Your task to perform on an android device: change the clock display to show seconds Image 0: 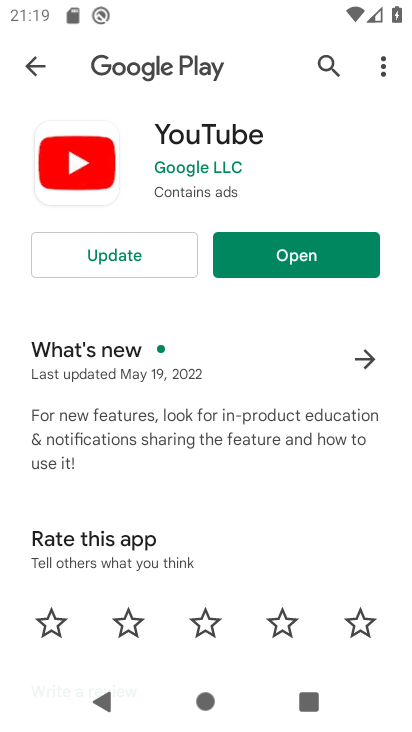
Step 0: press home button
Your task to perform on an android device: change the clock display to show seconds Image 1: 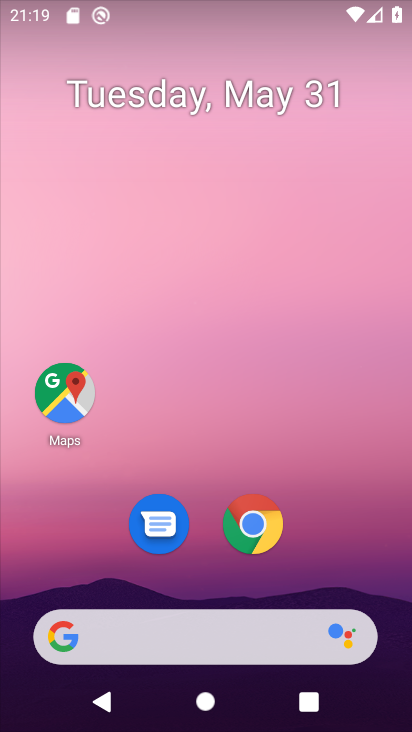
Step 1: drag from (301, 535) to (297, 130)
Your task to perform on an android device: change the clock display to show seconds Image 2: 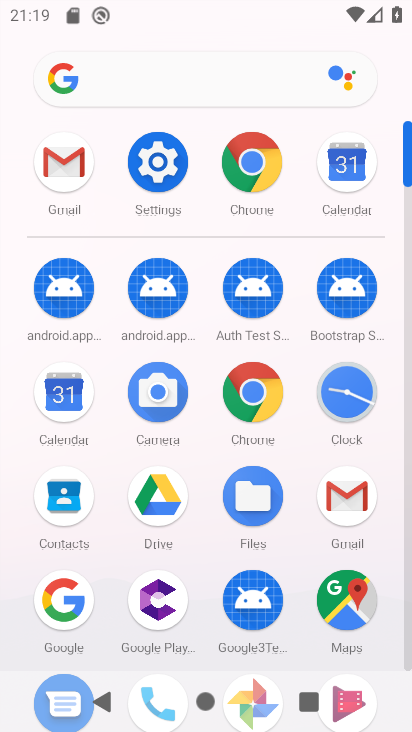
Step 2: click (347, 382)
Your task to perform on an android device: change the clock display to show seconds Image 3: 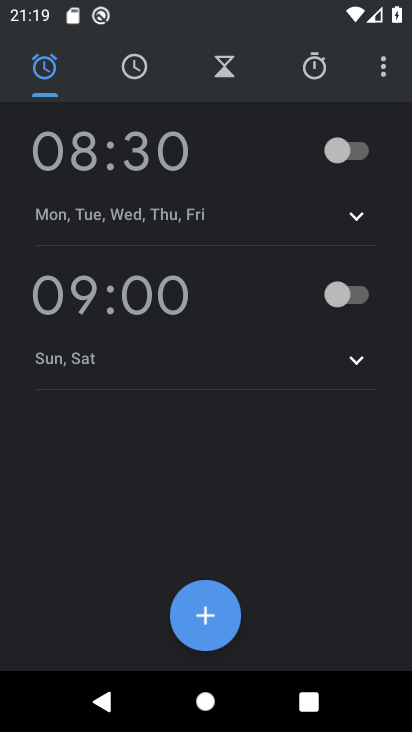
Step 3: click (380, 67)
Your task to perform on an android device: change the clock display to show seconds Image 4: 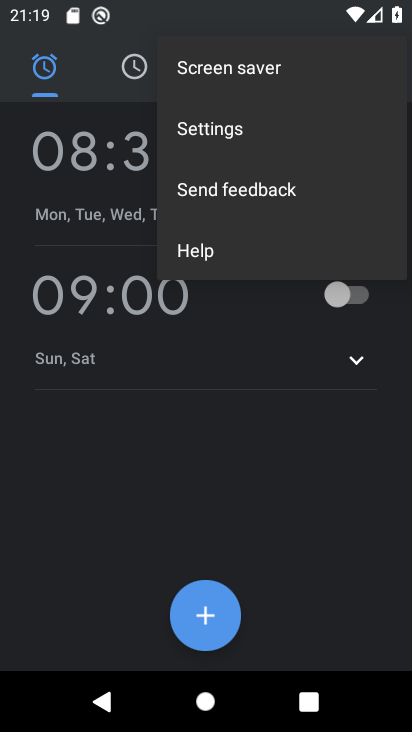
Step 4: click (290, 123)
Your task to perform on an android device: change the clock display to show seconds Image 5: 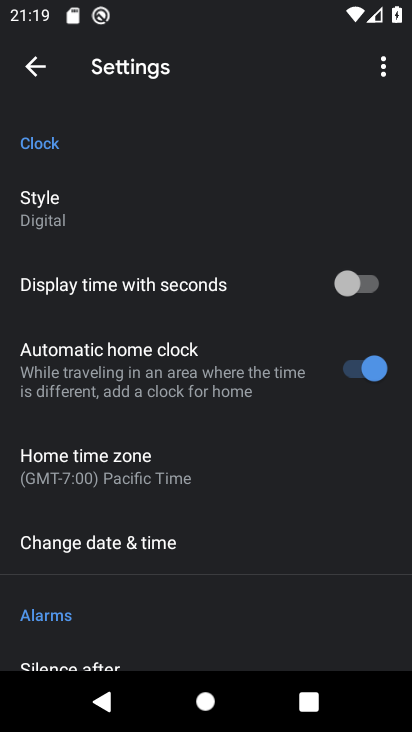
Step 5: click (364, 288)
Your task to perform on an android device: change the clock display to show seconds Image 6: 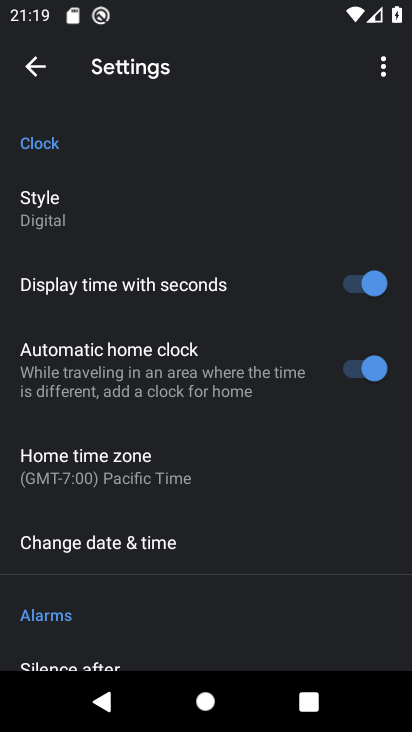
Step 6: click (37, 66)
Your task to perform on an android device: change the clock display to show seconds Image 7: 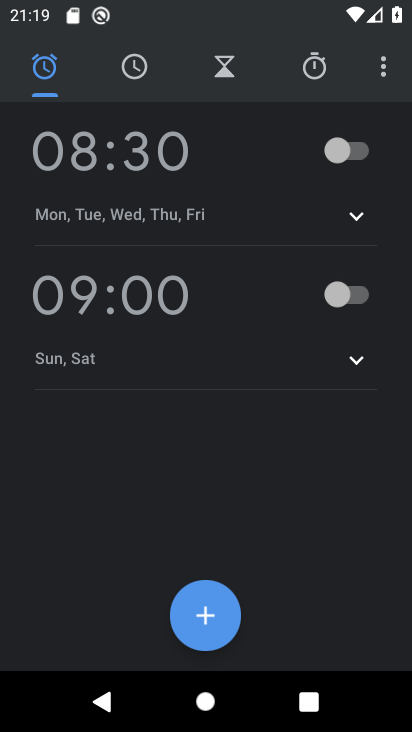
Step 7: click (132, 59)
Your task to perform on an android device: change the clock display to show seconds Image 8: 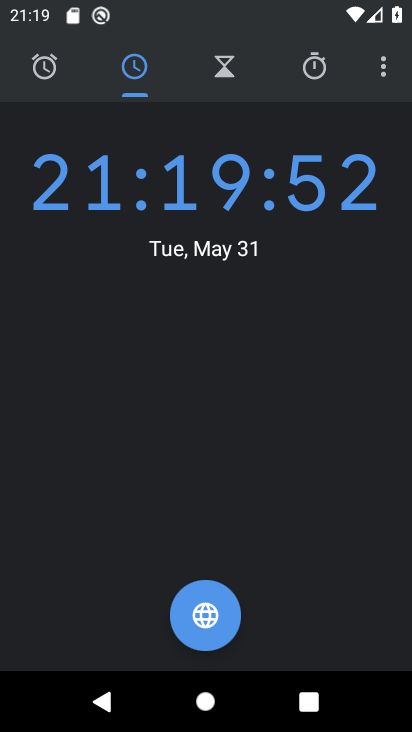
Step 8: task complete